Your task to perform on an android device: Add lenovo thinkpad to the cart on costco Image 0: 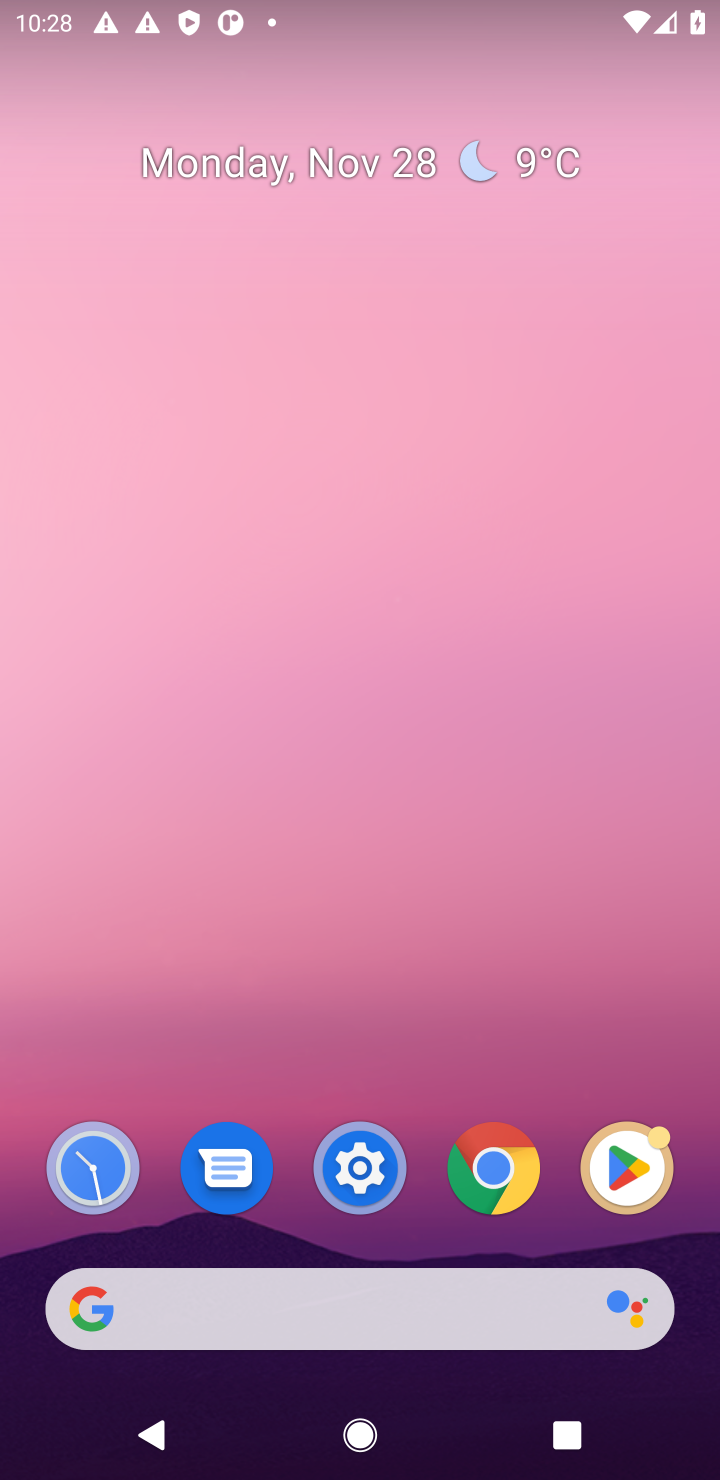
Step 0: press home button
Your task to perform on an android device: Add lenovo thinkpad to the cart on costco Image 1: 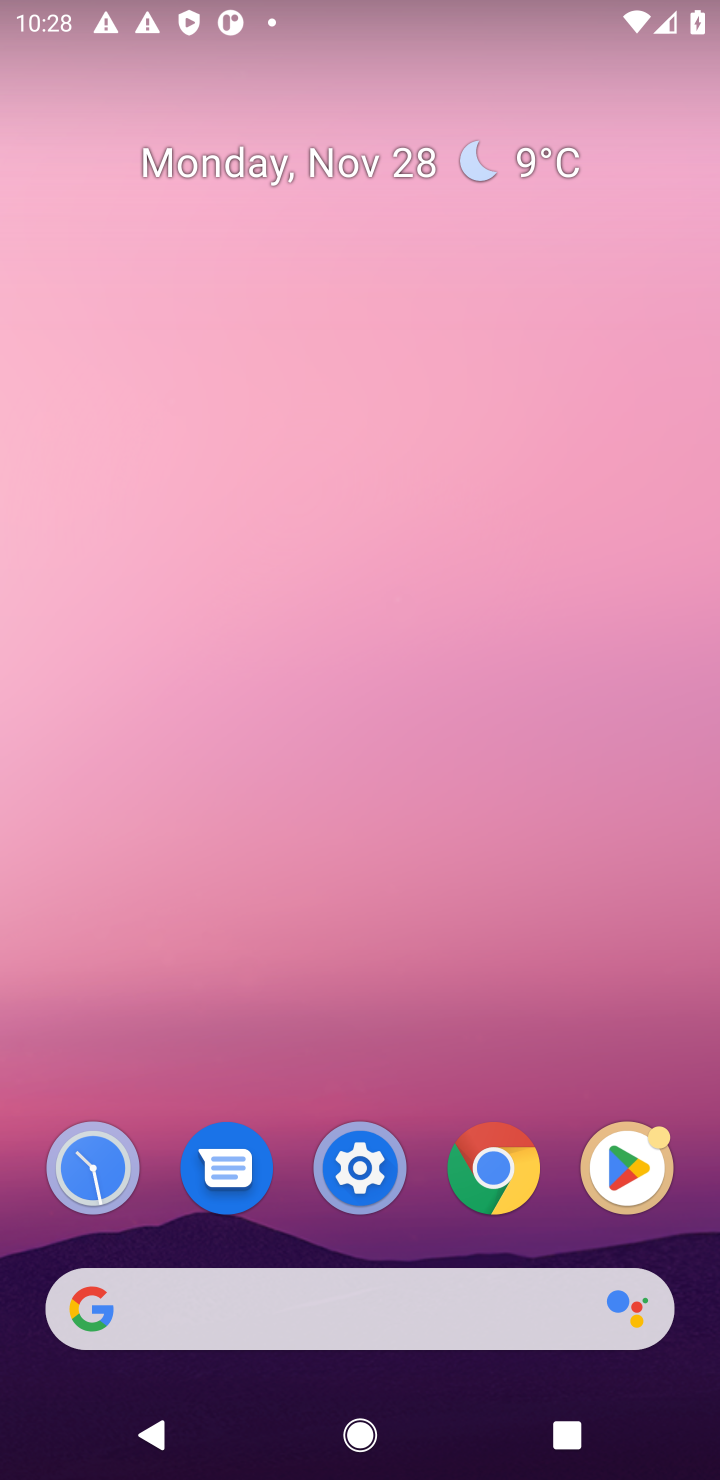
Step 1: click (289, 1338)
Your task to perform on an android device: Add lenovo thinkpad to the cart on costco Image 2: 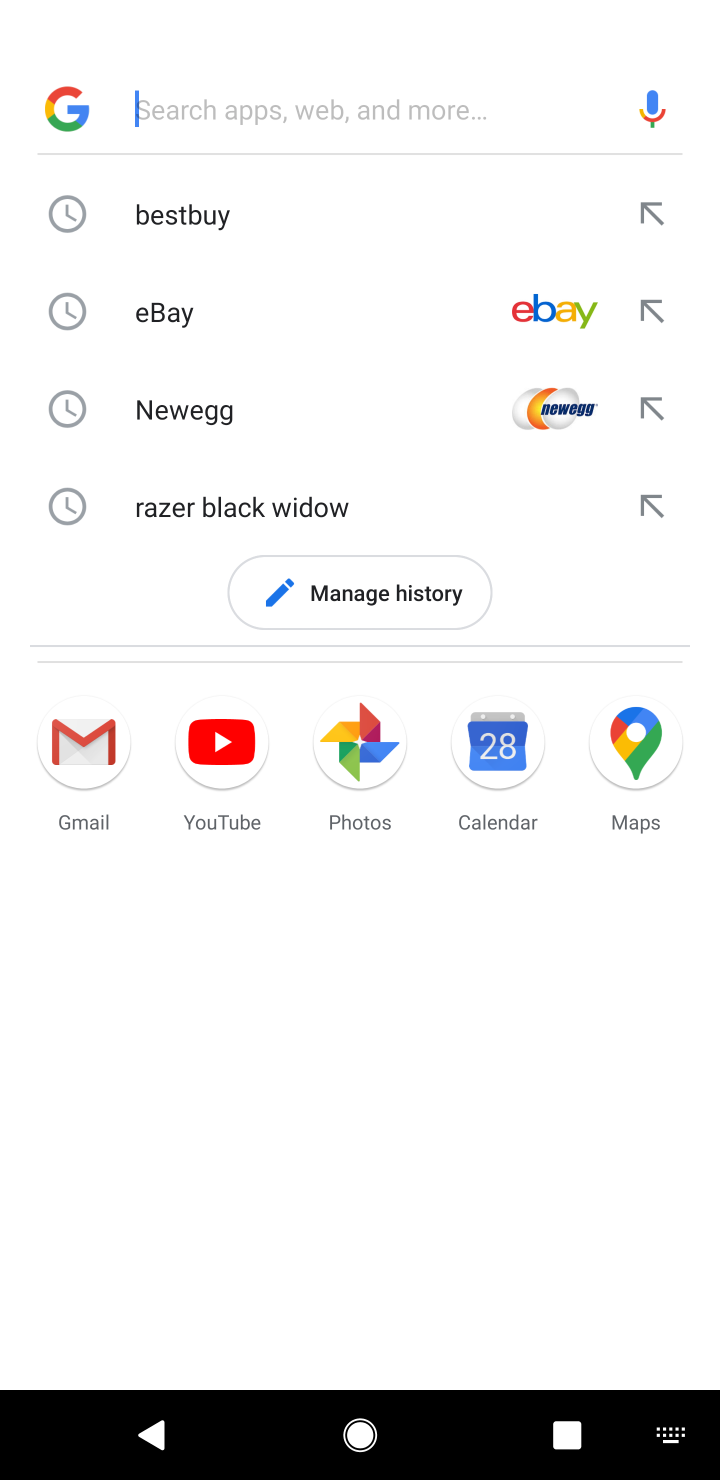
Step 2: type "costco.com"
Your task to perform on an android device: Add lenovo thinkpad to the cart on costco Image 3: 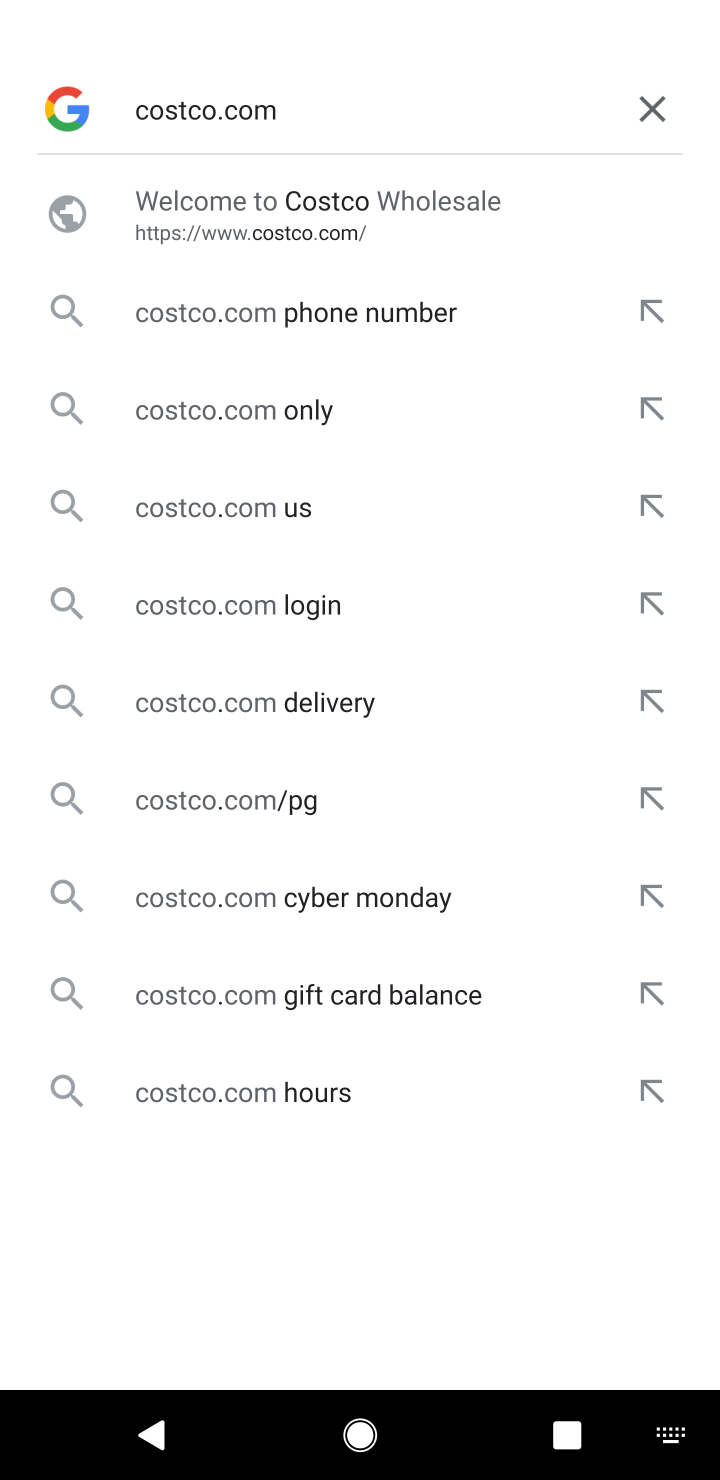
Step 3: task complete